Your task to perform on an android device: Do I have any events tomorrow? Image 0: 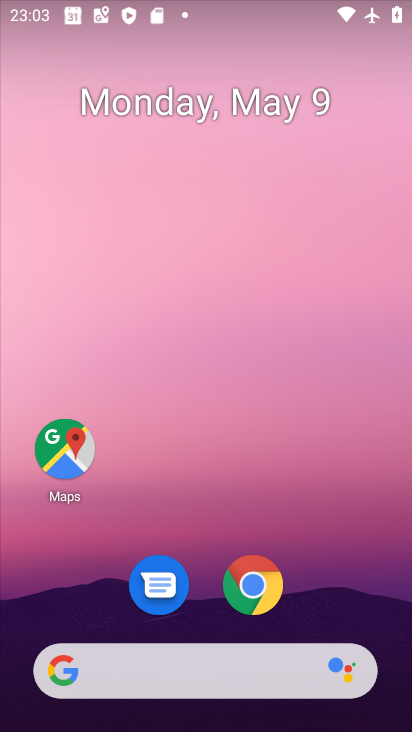
Step 0: drag from (325, 530) to (322, 5)
Your task to perform on an android device: Do I have any events tomorrow? Image 1: 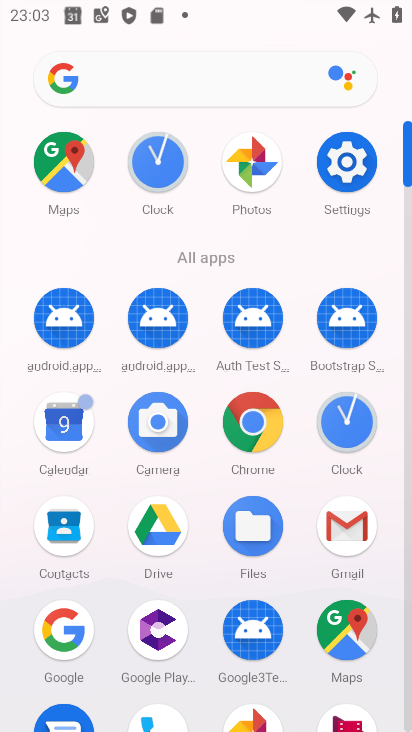
Step 1: click (64, 423)
Your task to perform on an android device: Do I have any events tomorrow? Image 2: 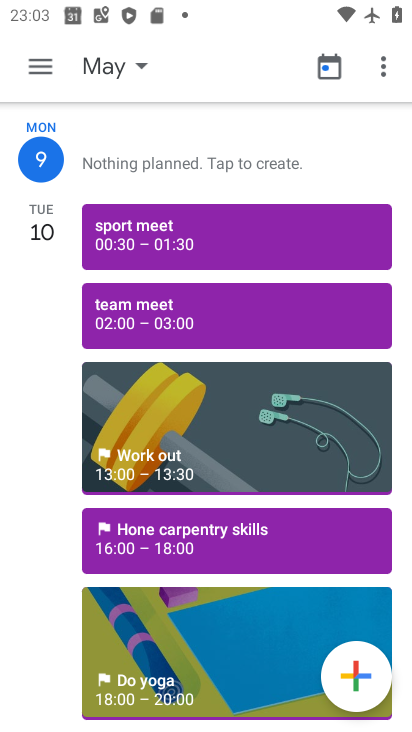
Step 2: task complete